Your task to perform on an android device: turn on data saver in the chrome app Image 0: 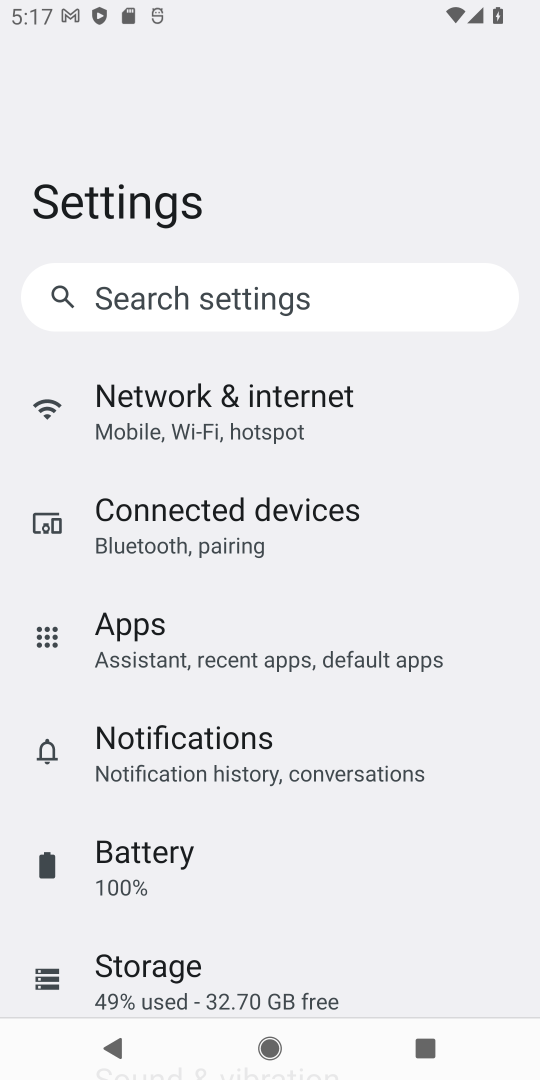
Step 0: press back button
Your task to perform on an android device: turn on data saver in the chrome app Image 1: 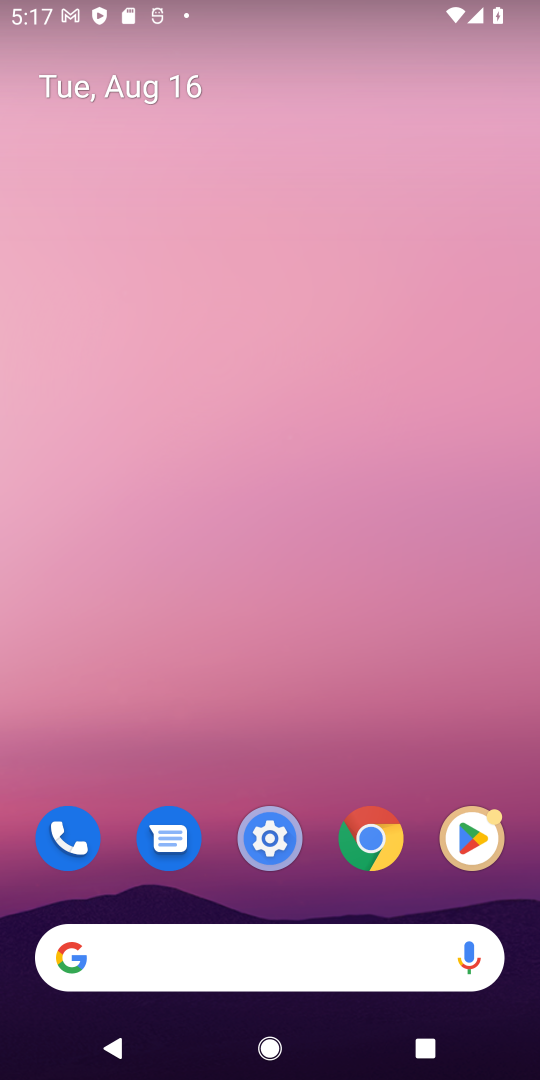
Step 1: click (372, 852)
Your task to perform on an android device: turn on data saver in the chrome app Image 2: 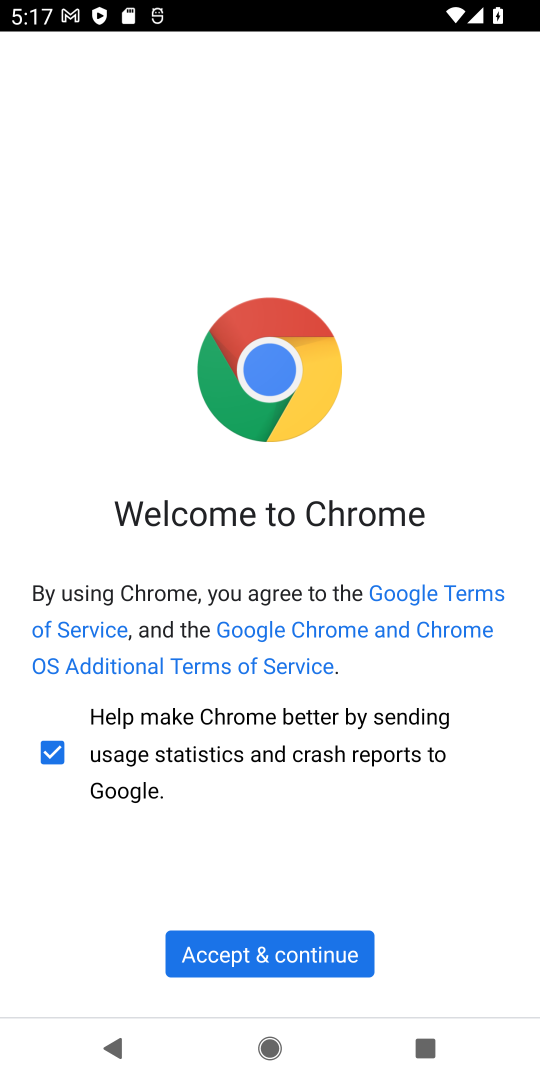
Step 2: click (280, 955)
Your task to perform on an android device: turn on data saver in the chrome app Image 3: 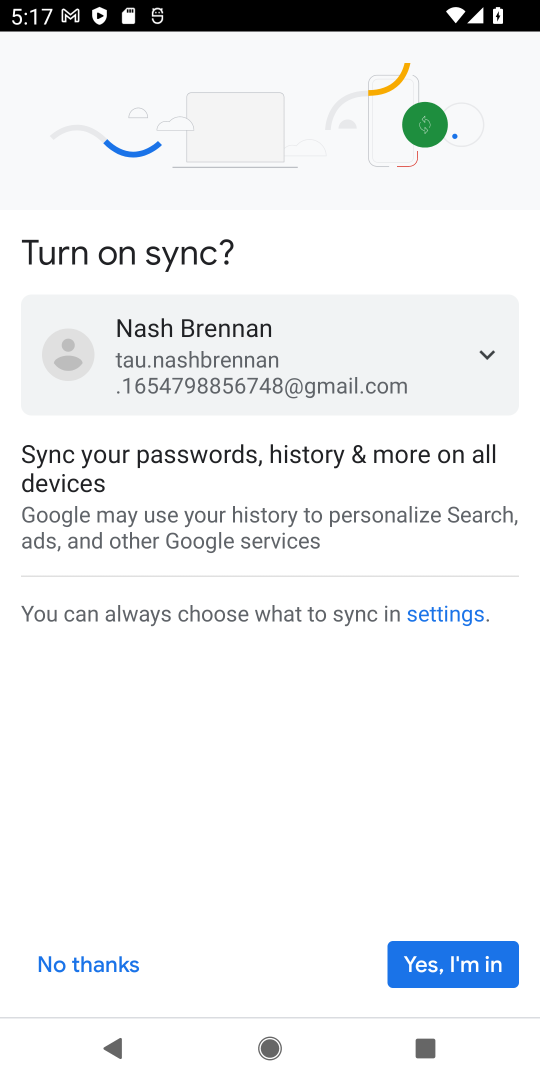
Step 3: click (465, 968)
Your task to perform on an android device: turn on data saver in the chrome app Image 4: 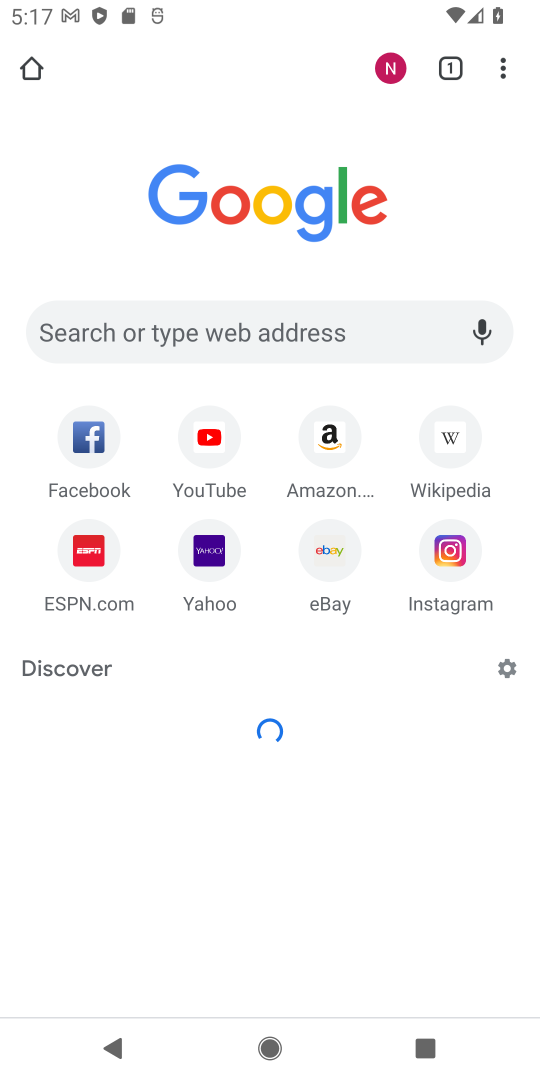
Step 4: drag from (497, 69) to (323, 612)
Your task to perform on an android device: turn on data saver in the chrome app Image 5: 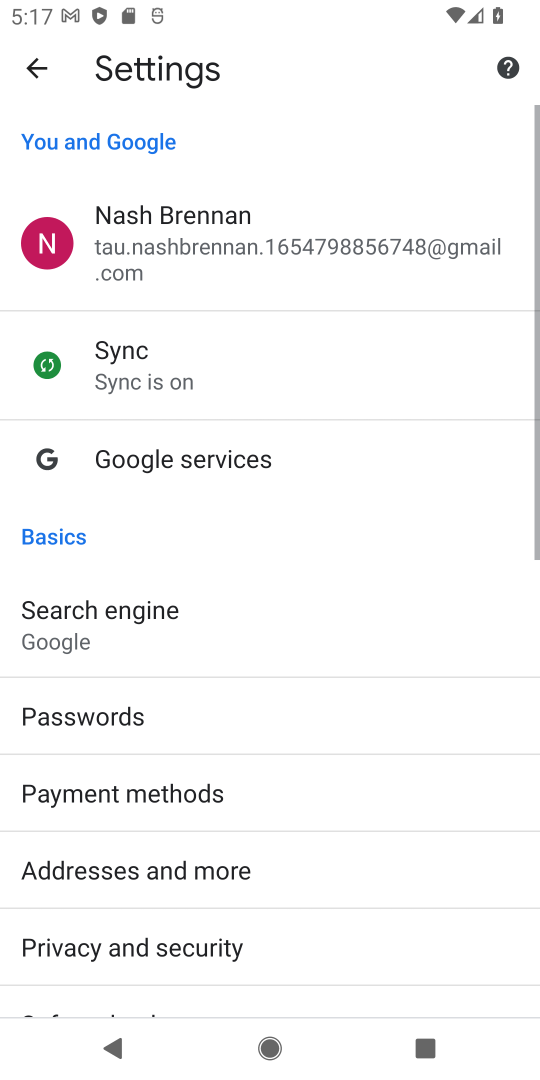
Step 5: drag from (246, 756) to (352, 49)
Your task to perform on an android device: turn on data saver in the chrome app Image 6: 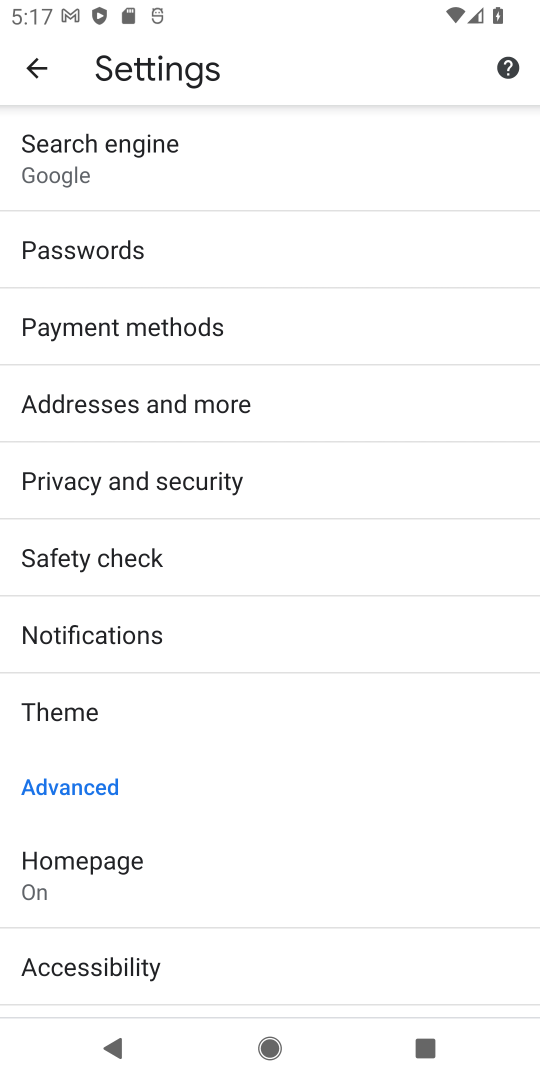
Step 6: drag from (166, 917) to (405, 30)
Your task to perform on an android device: turn on data saver in the chrome app Image 7: 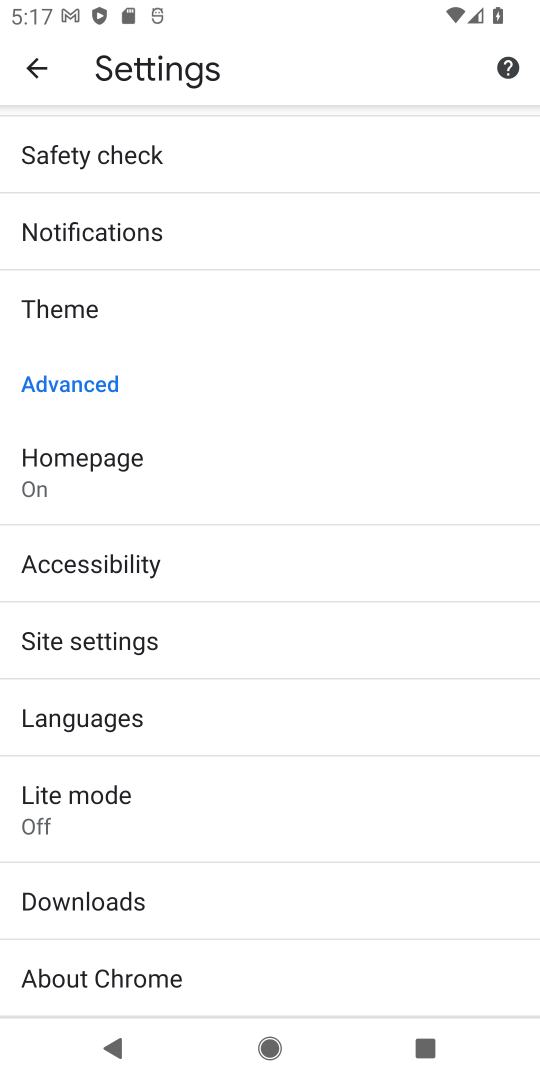
Step 7: click (112, 805)
Your task to perform on an android device: turn on data saver in the chrome app Image 8: 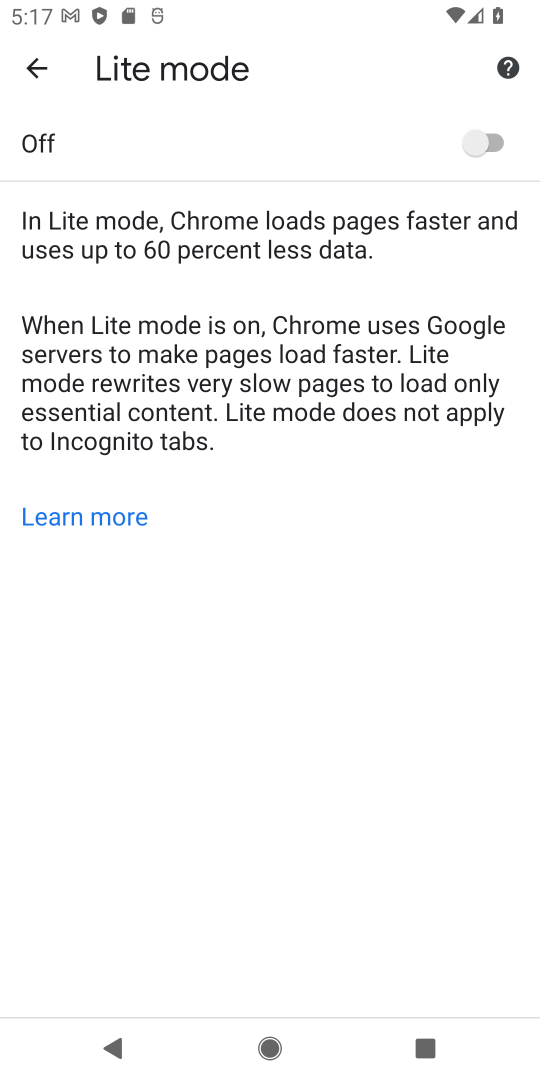
Step 8: click (488, 140)
Your task to perform on an android device: turn on data saver in the chrome app Image 9: 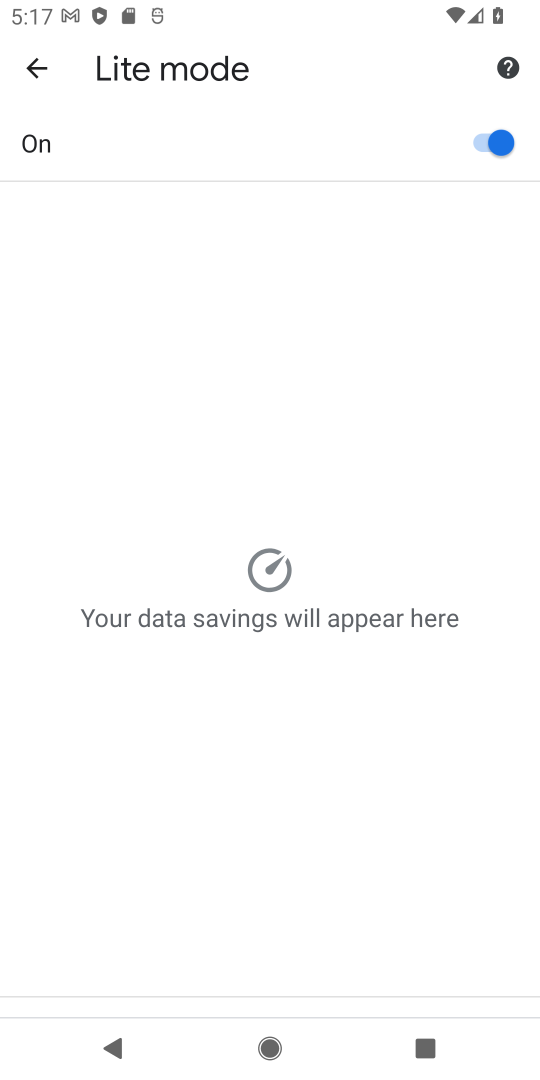
Step 9: task complete